Your task to perform on an android device: delete a single message in the gmail app Image 0: 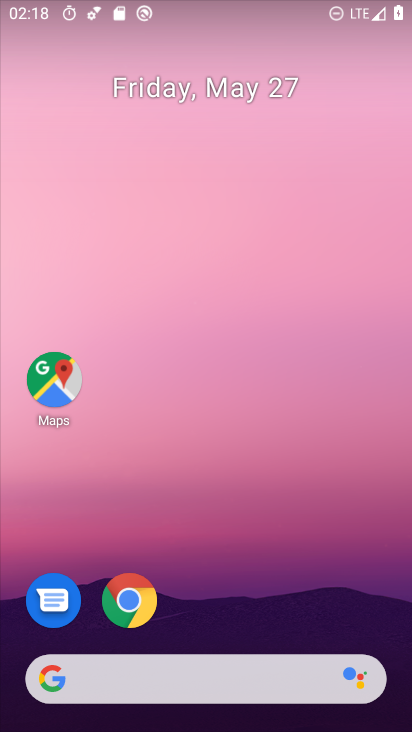
Step 0: drag from (241, 533) to (253, 105)
Your task to perform on an android device: delete a single message in the gmail app Image 1: 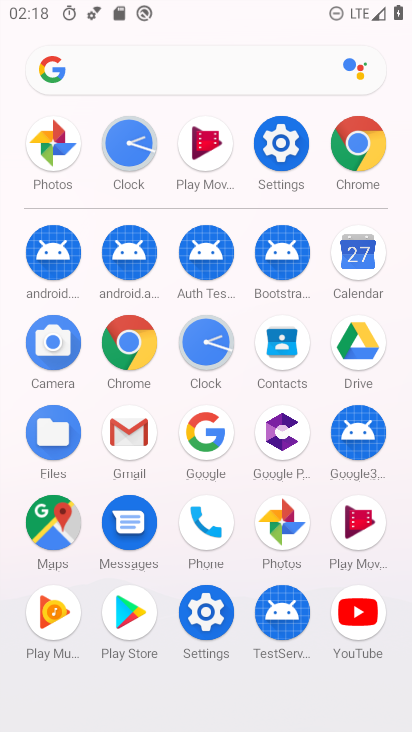
Step 1: click (100, 438)
Your task to perform on an android device: delete a single message in the gmail app Image 2: 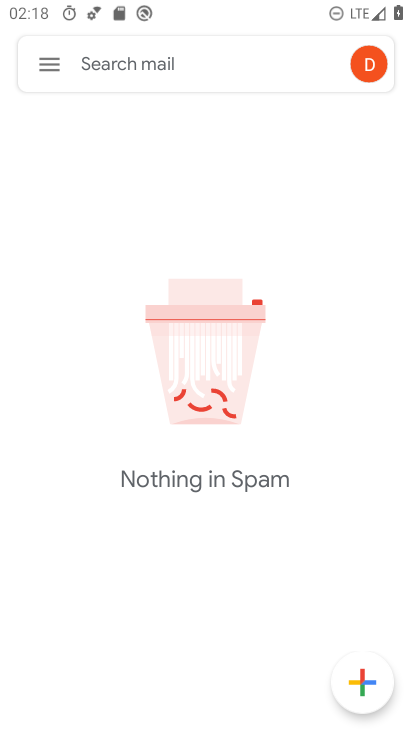
Step 2: click (63, 61)
Your task to perform on an android device: delete a single message in the gmail app Image 3: 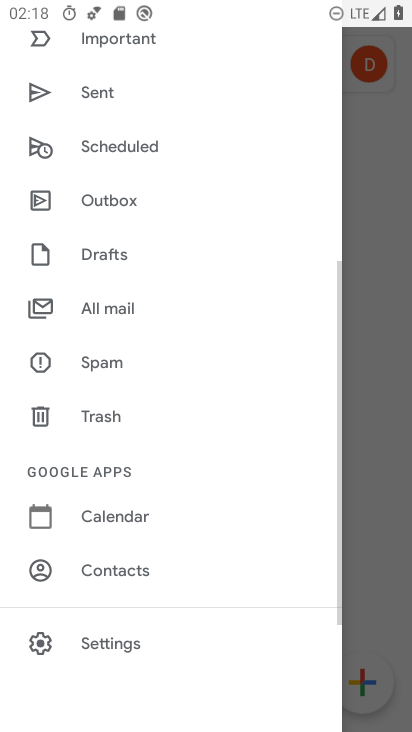
Step 3: drag from (122, 88) to (92, 703)
Your task to perform on an android device: delete a single message in the gmail app Image 4: 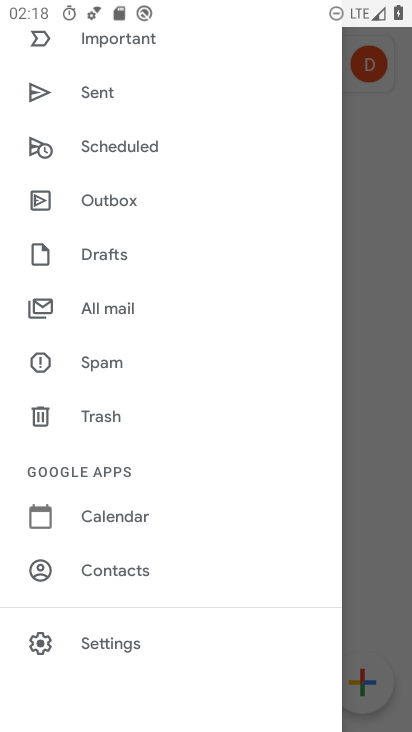
Step 4: drag from (185, 93) to (125, 673)
Your task to perform on an android device: delete a single message in the gmail app Image 5: 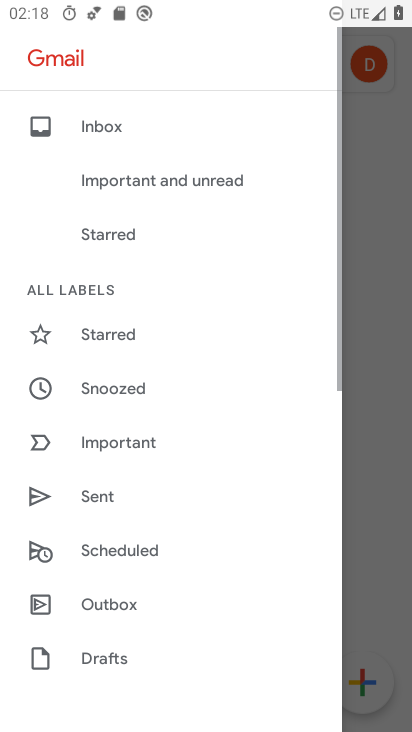
Step 5: click (99, 129)
Your task to perform on an android device: delete a single message in the gmail app Image 6: 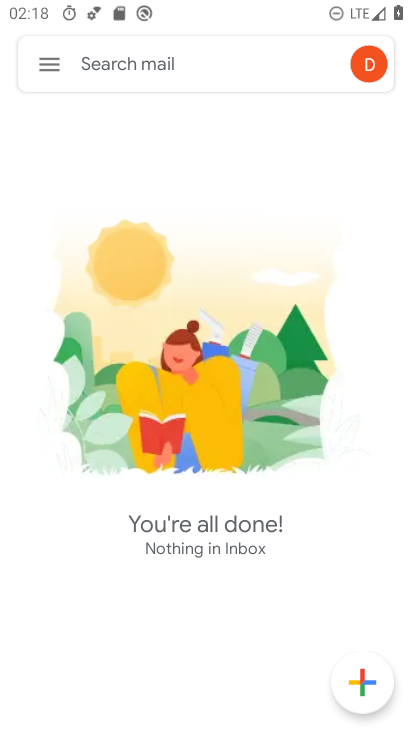
Step 6: click (50, 57)
Your task to perform on an android device: delete a single message in the gmail app Image 7: 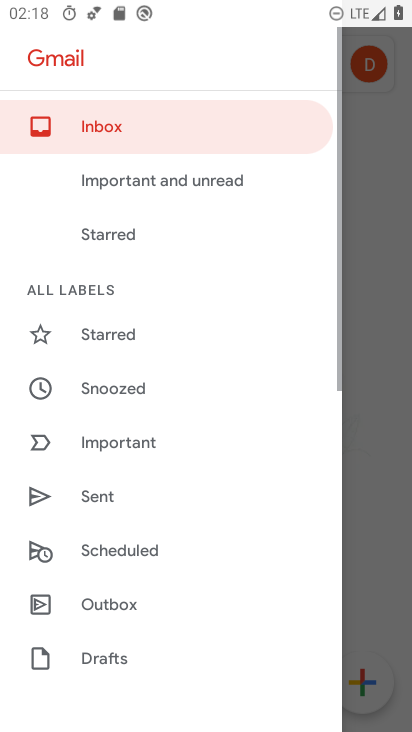
Step 7: drag from (141, 518) to (179, 18)
Your task to perform on an android device: delete a single message in the gmail app Image 8: 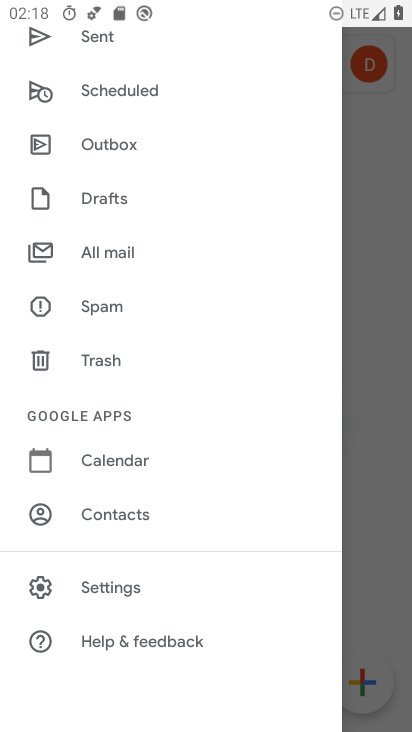
Step 8: drag from (200, 187) to (209, 595)
Your task to perform on an android device: delete a single message in the gmail app Image 9: 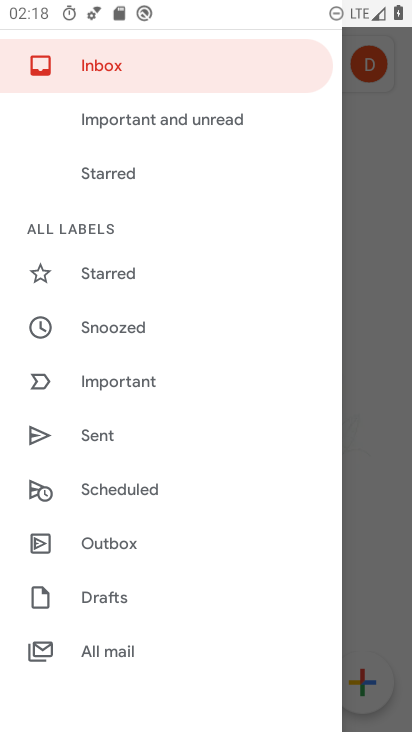
Step 9: click (103, 645)
Your task to perform on an android device: delete a single message in the gmail app Image 10: 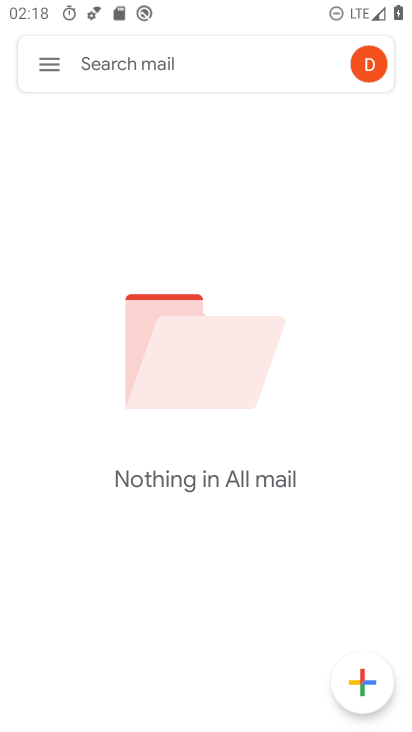
Step 10: task complete